Your task to perform on an android device: change the clock style Image 0: 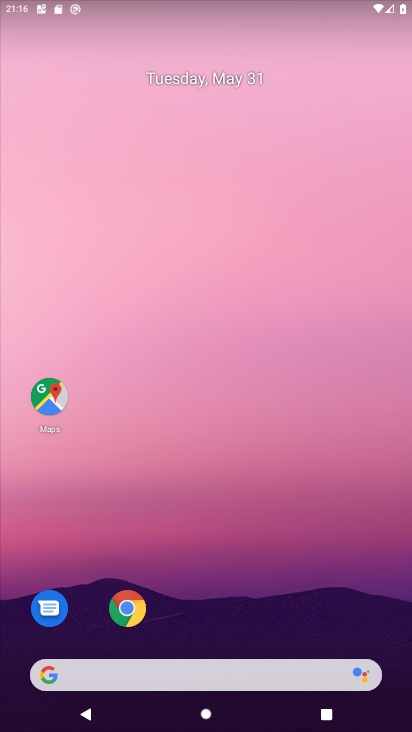
Step 0: drag from (276, 575) to (218, 144)
Your task to perform on an android device: change the clock style Image 1: 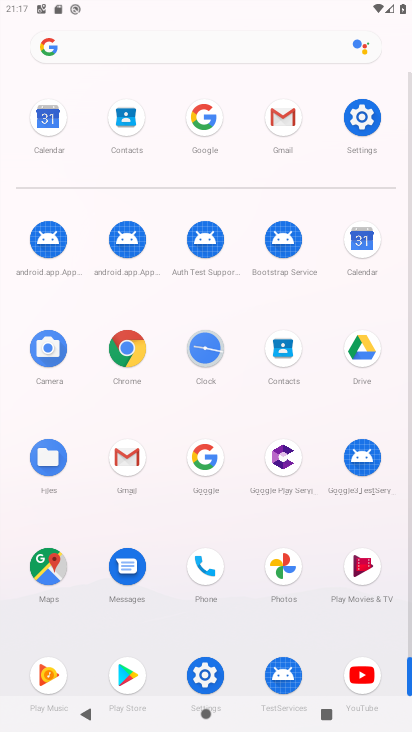
Step 1: click (205, 349)
Your task to perform on an android device: change the clock style Image 2: 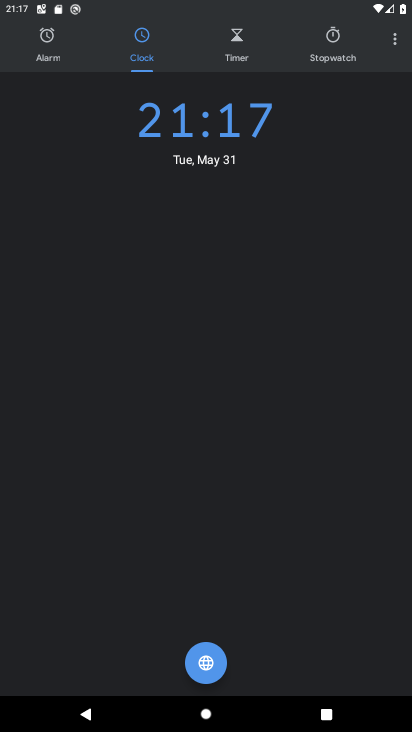
Step 2: click (398, 41)
Your task to perform on an android device: change the clock style Image 3: 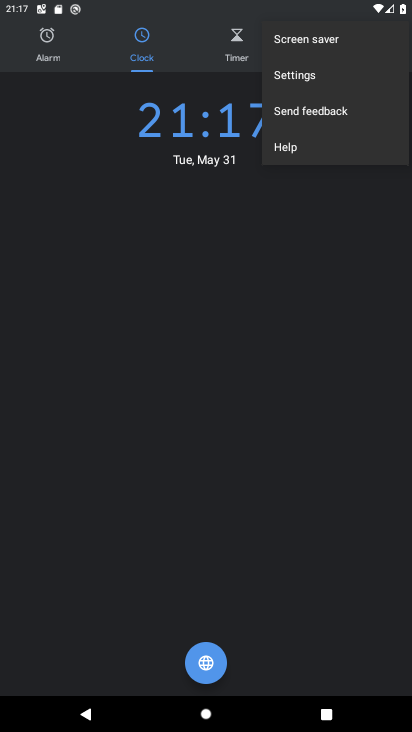
Step 3: click (314, 82)
Your task to perform on an android device: change the clock style Image 4: 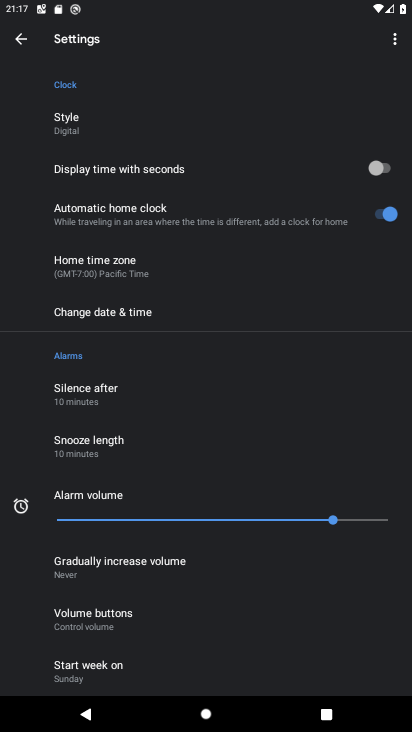
Step 4: click (89, 129)
Your task to perform on an android device: change the clock style Image 5: 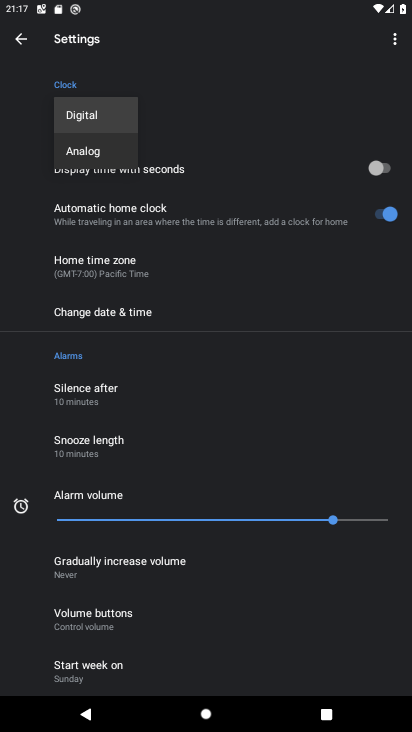
Step 5: click (93, 149)
Your task to perform on an android device: change the clock style Image 6: 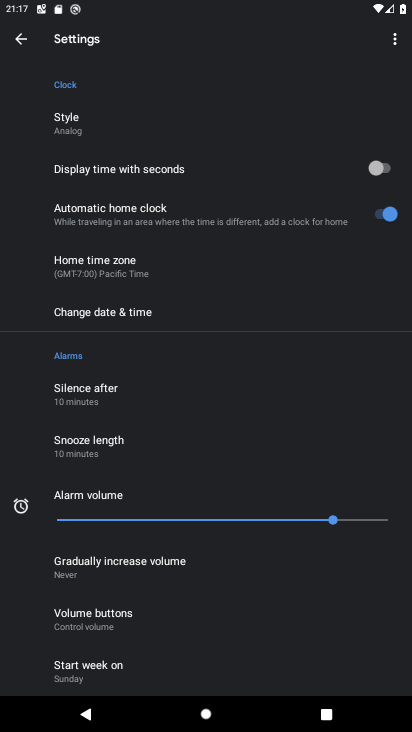
Step 6: task complete